Your task to perform on an android device: set the stopwatch Image 0: 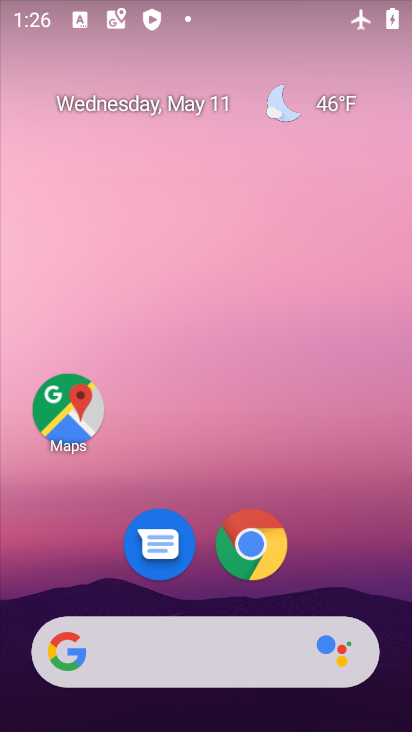
Step 0: drag from (395, 635) to (327, 64)
Your task to perform on an android device: set the stopwatch Image 1: 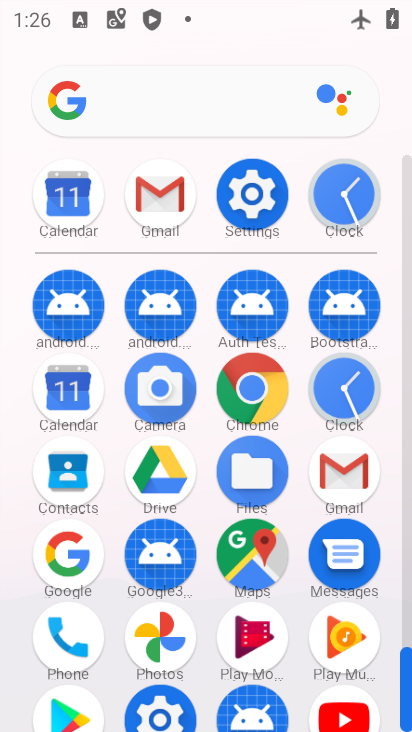
Step 1: click (405, 614)
Your task to perform on an android device: set the stopwatch Image 2: 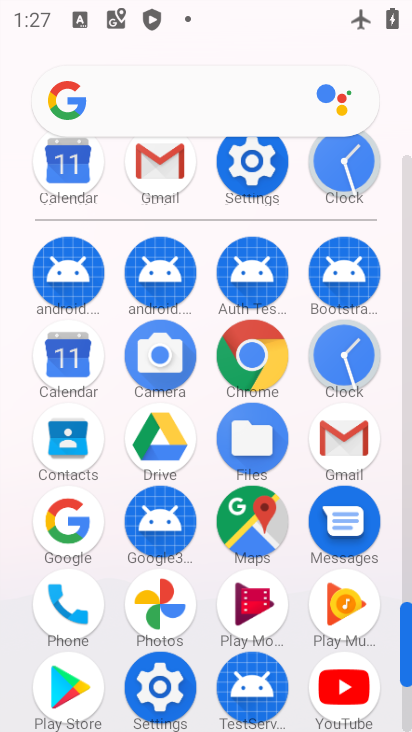
Step 2: click (403, 720)
Your task to perform on an android device: set the stopwatch Image 3: 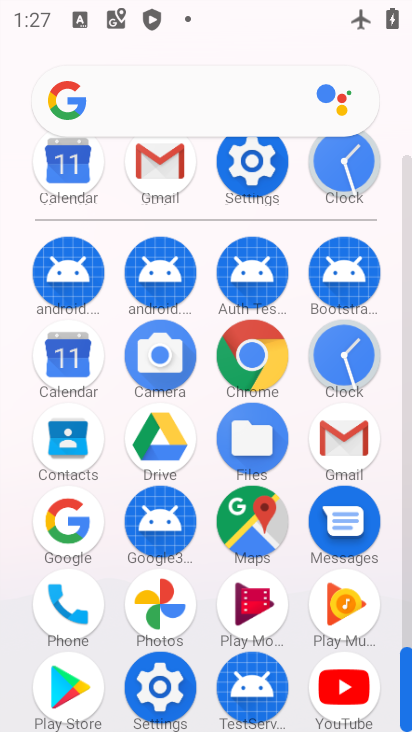
Step 3: click (340, 352)
Your task to perform on an android device: set the stopwatch Image 4: 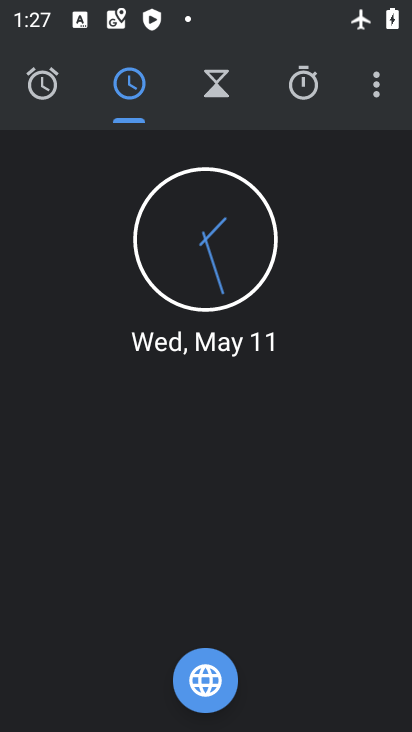
Step 4: click (303, 85)
Your task to perform on an android device: set the stopwatch Image 5: 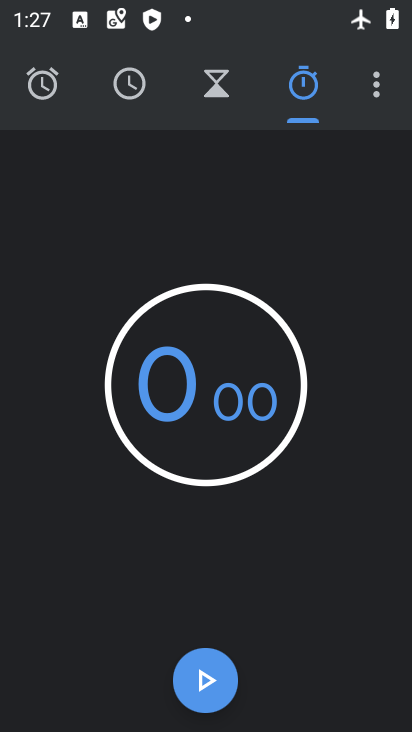
Step 5: task complete